Your task to perform on an android device: Open Youtube and go to the subscriptions tab Image 0: 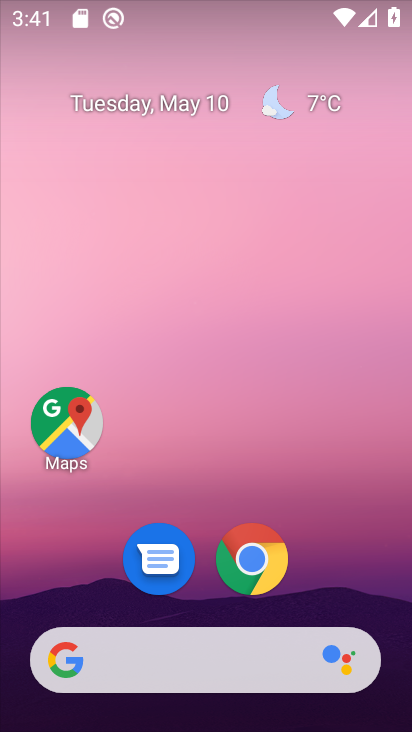
Step 0: drag from (155, 620) to (260, 139)
Your task to perform on an android device: Open Youtube and go to the subscriptions tab Image 1: 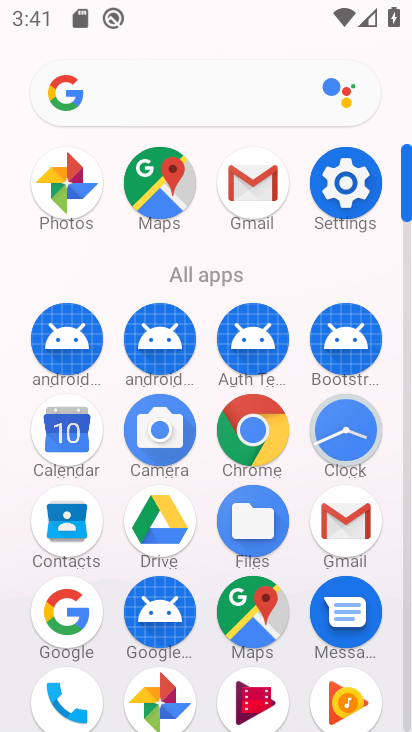
Step 1: drag from (190, 581) to (269, 274)
Your task to perform on an android device: Open Youtube and go to the subscriptions tab Image 2: 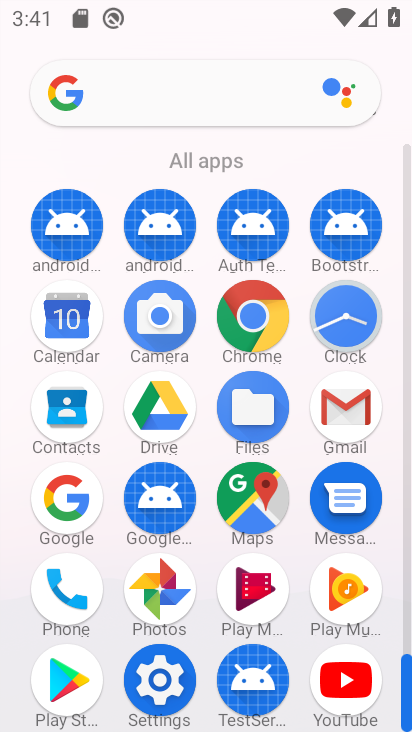
Step 2: click (337, 697)
Your task to perform on an android device: Open Youtube and go to the subscriptions tab Image 3: 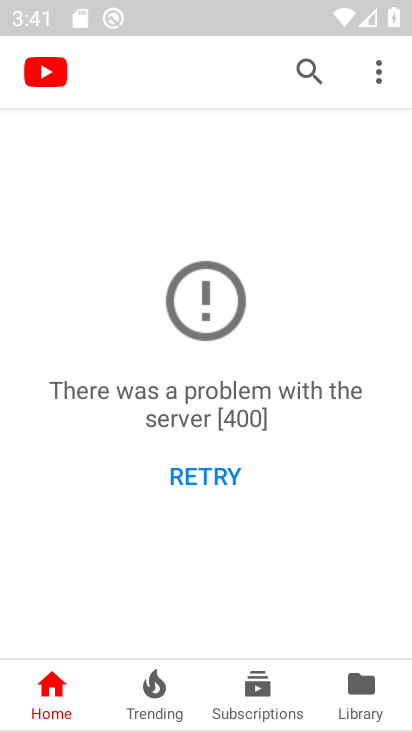
Step 3: task complete